Your task to perform on an android device: turn off airplane mode Image 0: 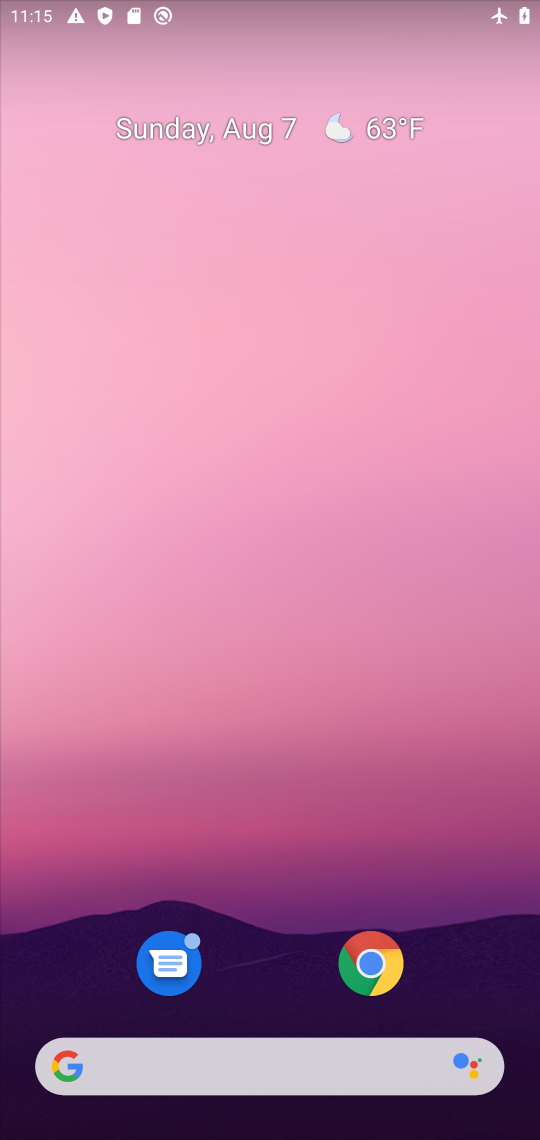
Step 0: drag from (312, 21) to (374, 1027)
Your task to perform on an android device: turn off airplane mode Image 1: 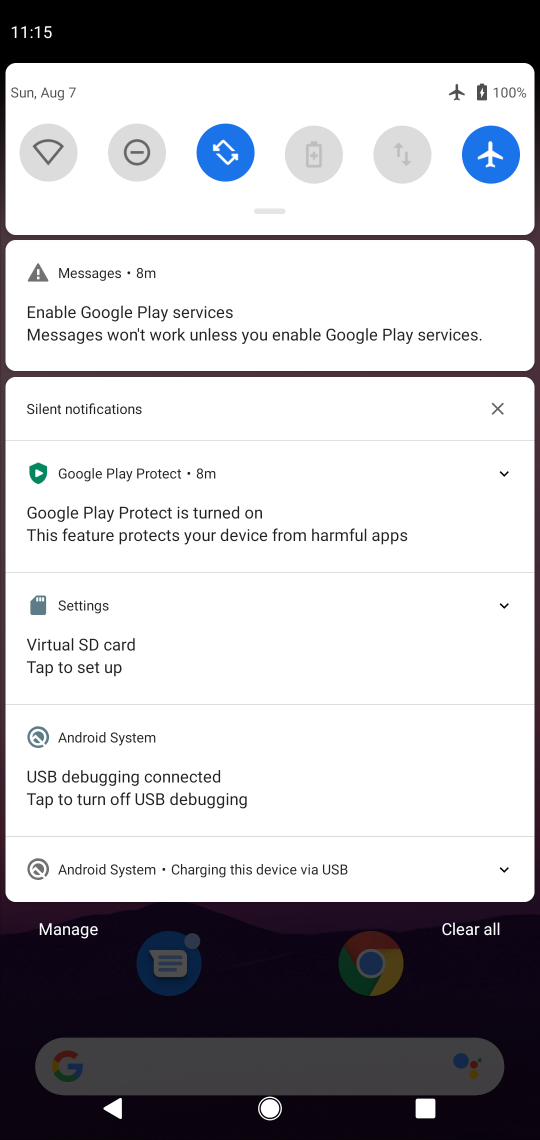
Step 1: click (503, 136)
Your task to perform on an android device: turn off airplane mode Image 2: 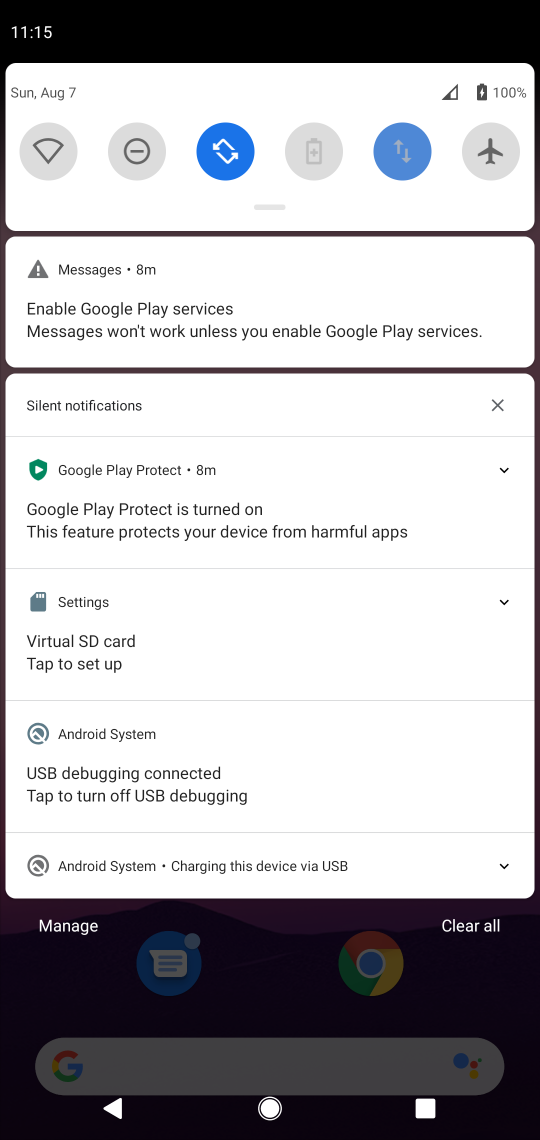
Step 2: task complete